Your task to perform on an android device: open device folders in google photos Image 0: 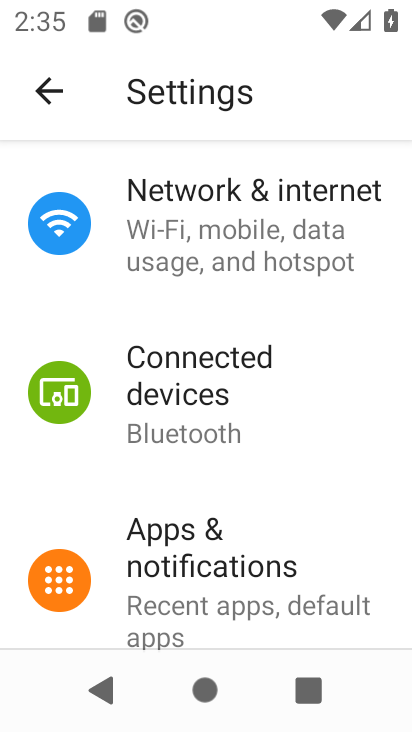
Step 0: drag from (246, 625) to (357, 177)
Your task to perform on an android device: open device folders in google photos Image 1: 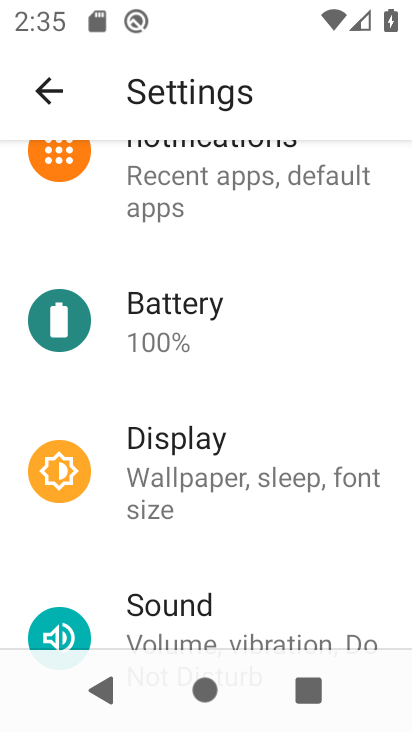
Step 1: press home button
Your task to perform on an android device: open device folders in google photos Image 2: 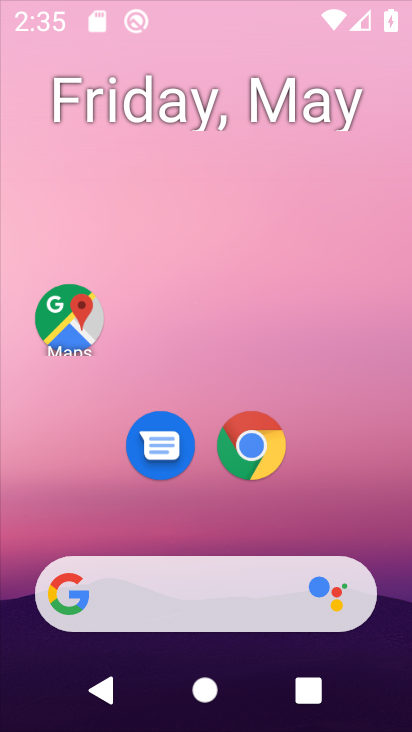
Step 2: drag from (195, 588) to (275, 255)
Your task to perform on an android device: open device folders in google photos Image 3: 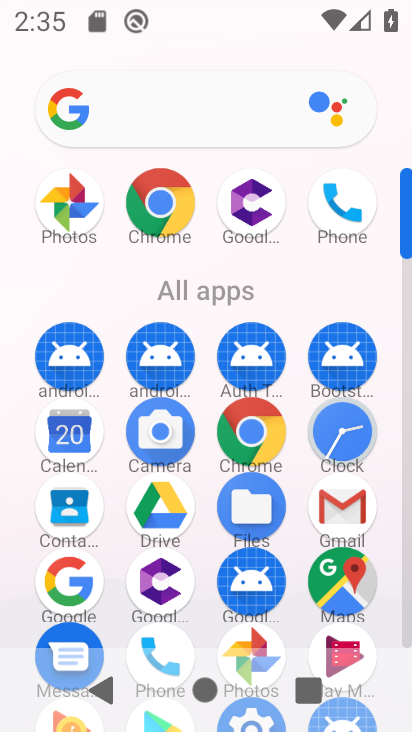
Step 3: click (256, 634)
Your task to perform on an android device: open device folders in google photos Image 4: 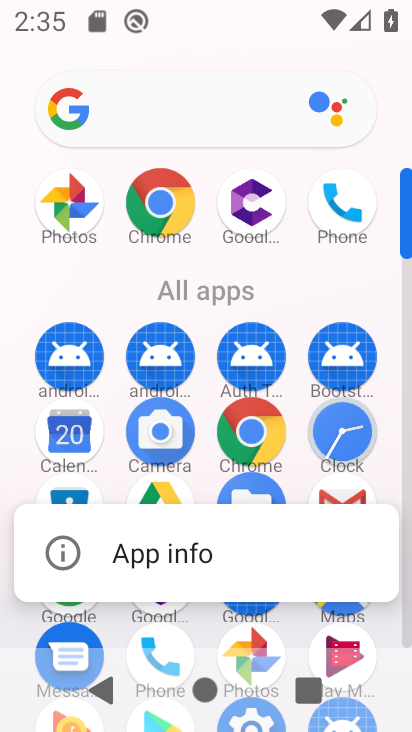
Step 4: click (135, 581)
Your task to perform on an android device: open device folders in google photos Image 5: 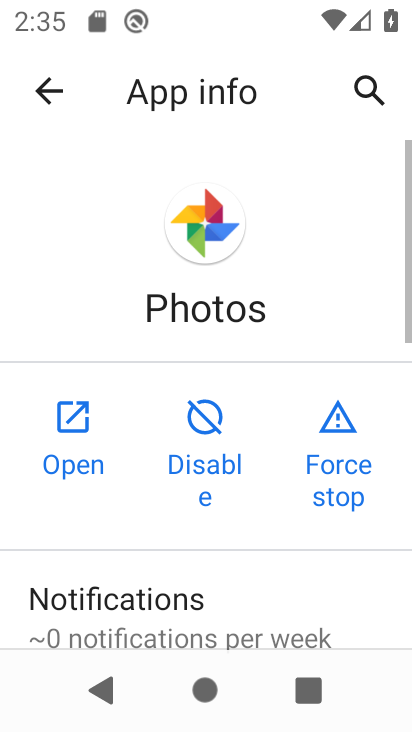
Step 5: click (58, 459)
Your task to perform on an android device: open device folders in google photos Image 6: 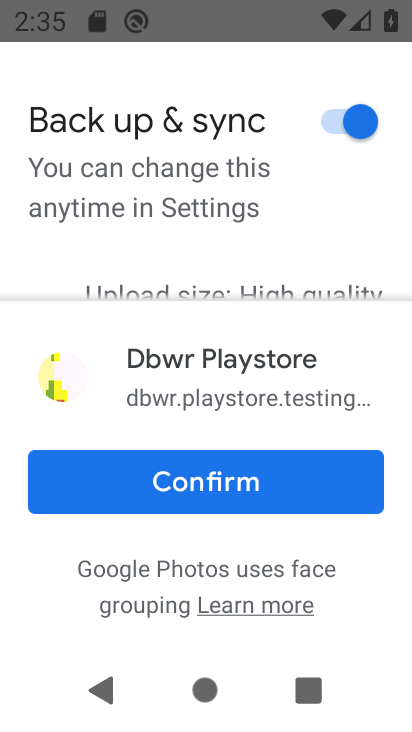
Step 6: drag from (204, 477) to (299, 200)
Your task to perform on an android device: open device folders in google photos Image 7: 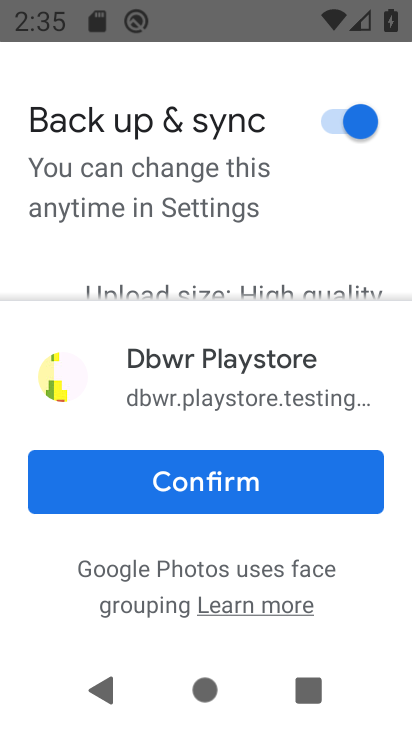
Step 7: click (174, 479)
Your task to perform on an android device: open device folders in google photos Image 8: 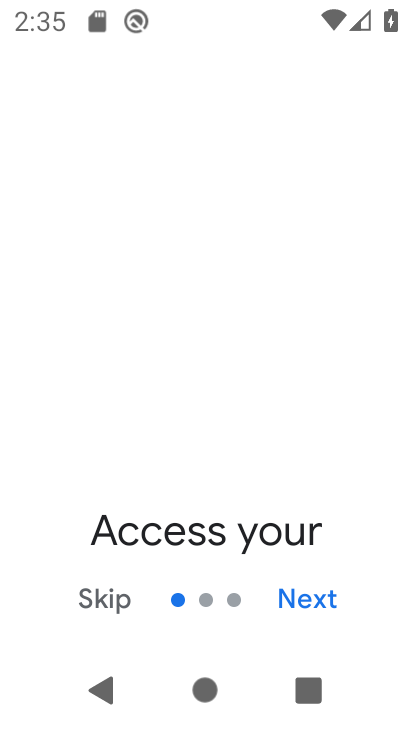
Step 8: drag from (294, 519) to (321, 267)
Your task to perform on an android device: open device folders in google photos Image 9: 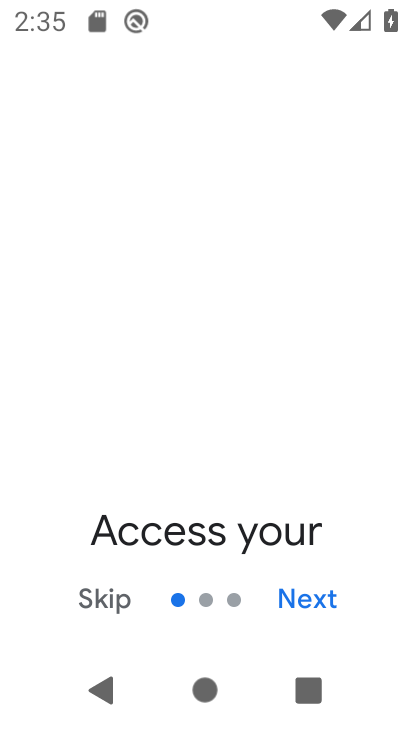
Step 9: click (100, 595)
Your task to perform on an android device: open device folders in google photos Image 10: 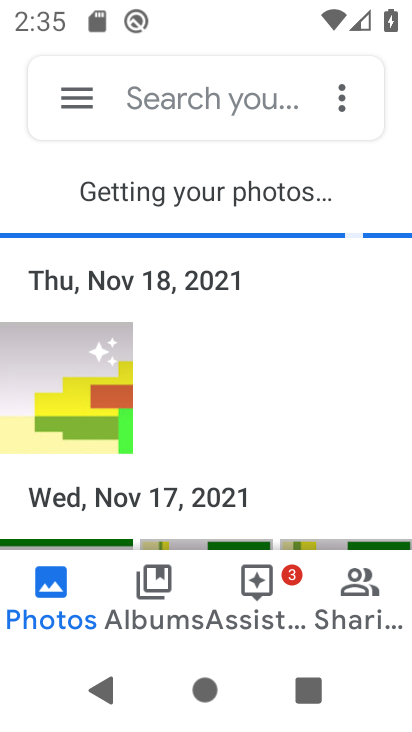
Step 10: drag from (161, 481) to (194, 299)
Your task to perform on an android device: open device folders in google photos Image 11: 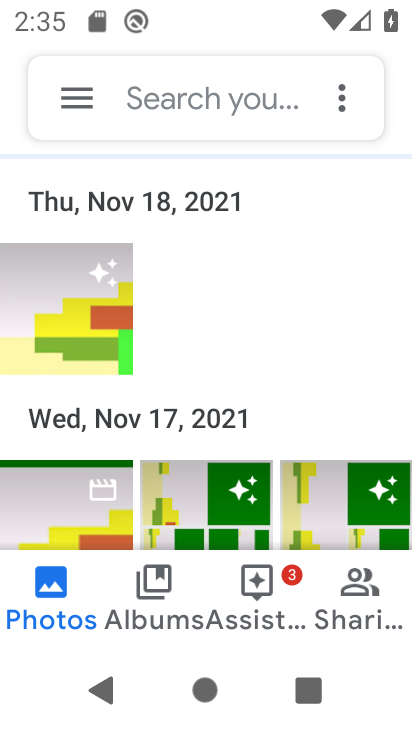
Step 11: click (78, 91)
Your task to perform on an android device: open device folders in google photos Image 12: 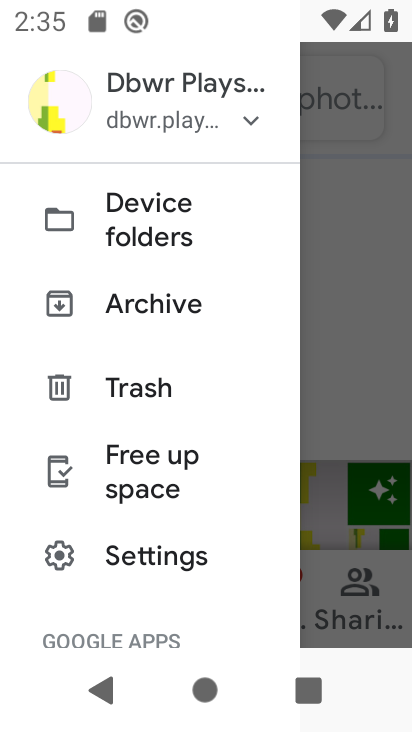
Step 12: click (135, 234)
Your task to perform on an android device: open device folders in google photos Image 13: 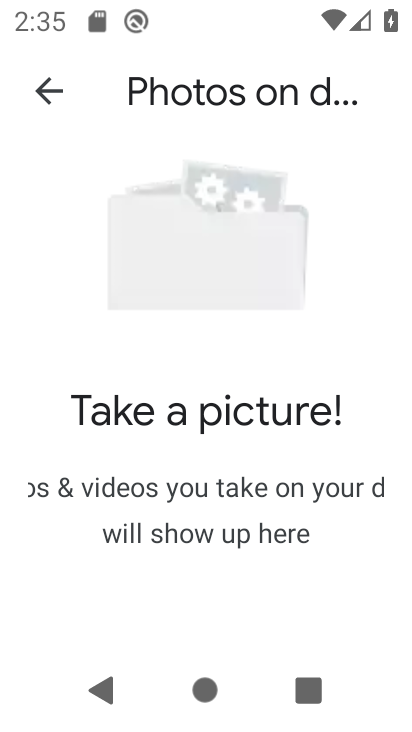
Step 13: task complete